Your task to perform on an android device: delete the emails in spam in the gmail app Image 0: 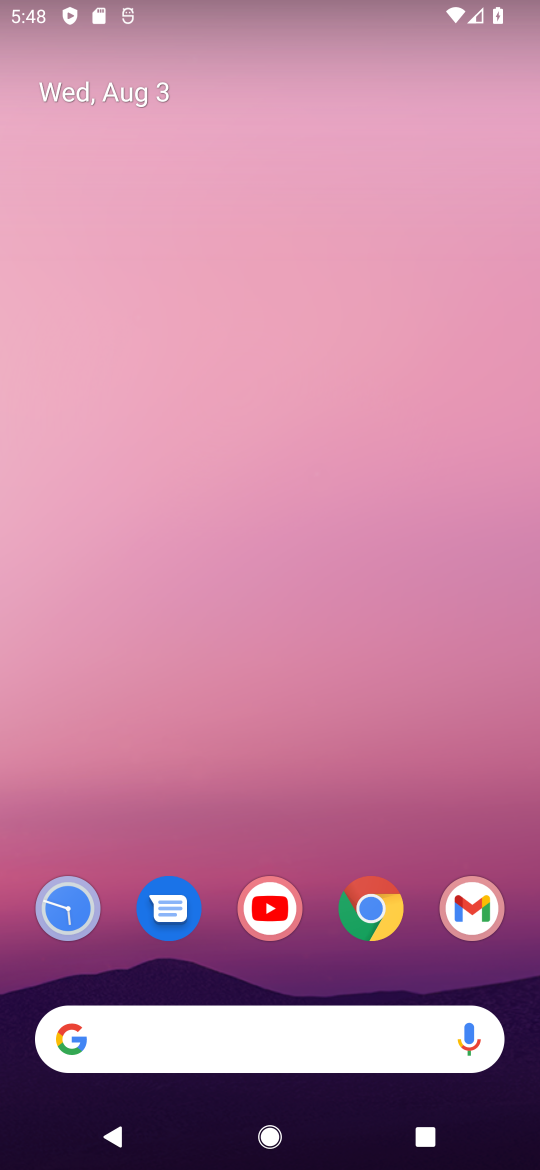
Step 0: drag from (278, 962) to (378, 84)
Your task to perform on an android device: delete the emails in spam in the gmail app Image 1: 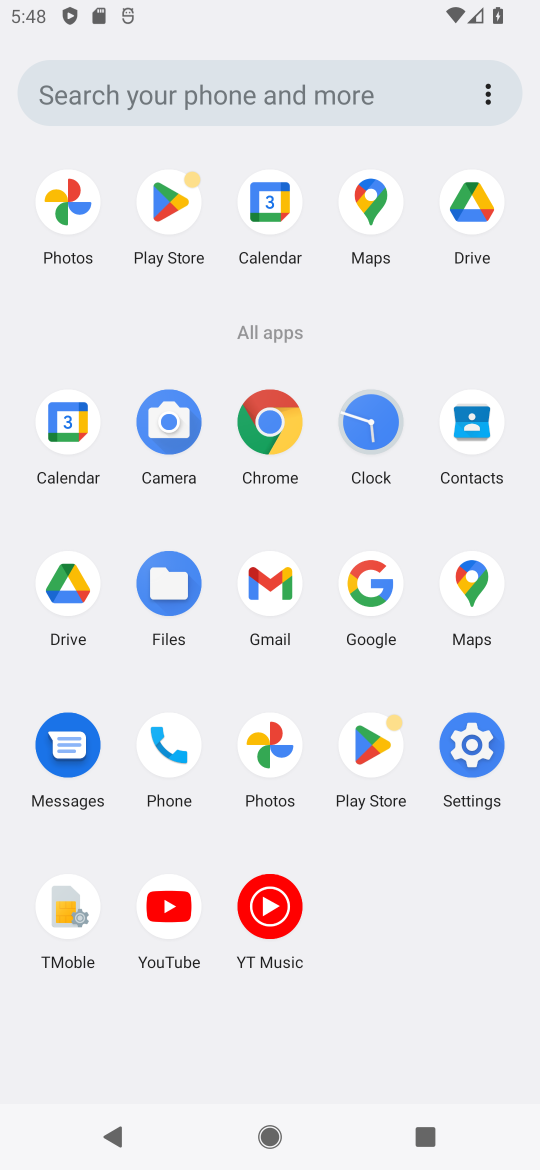
Step 1: click (284, 616)
Your task to perform on an android device: delete the emails in spam in the gmail app Image 2: 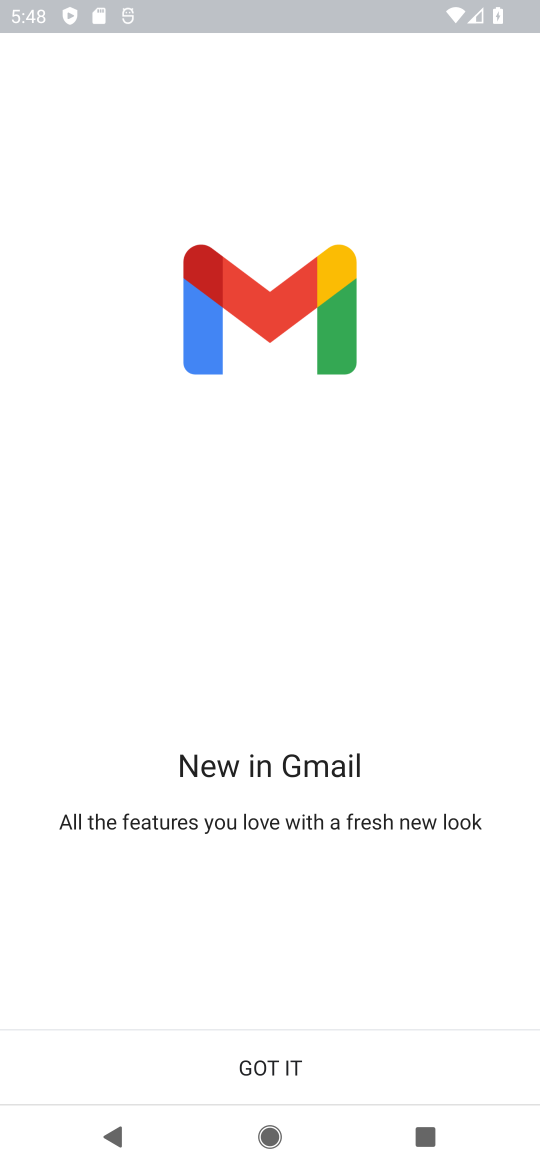
Step 2: click (358, 1057)
Your task to perform on an android device: delete the emails in spam in the gmail app Image 3: 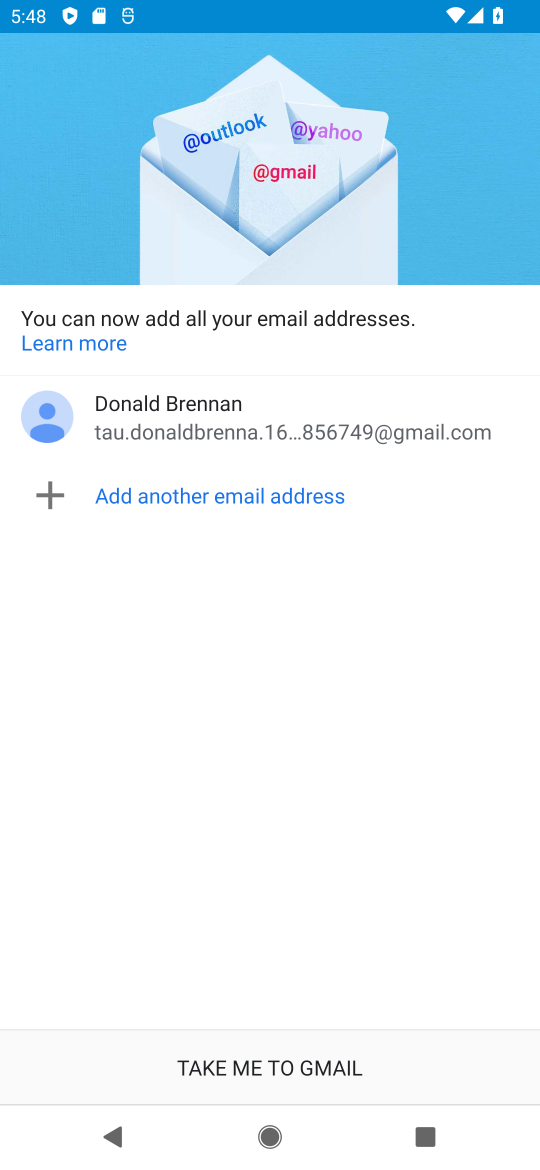
Step 3: click (278, 1063)
Your task to perform on an android device: delete the emails in spam in the gmail app Image 4: 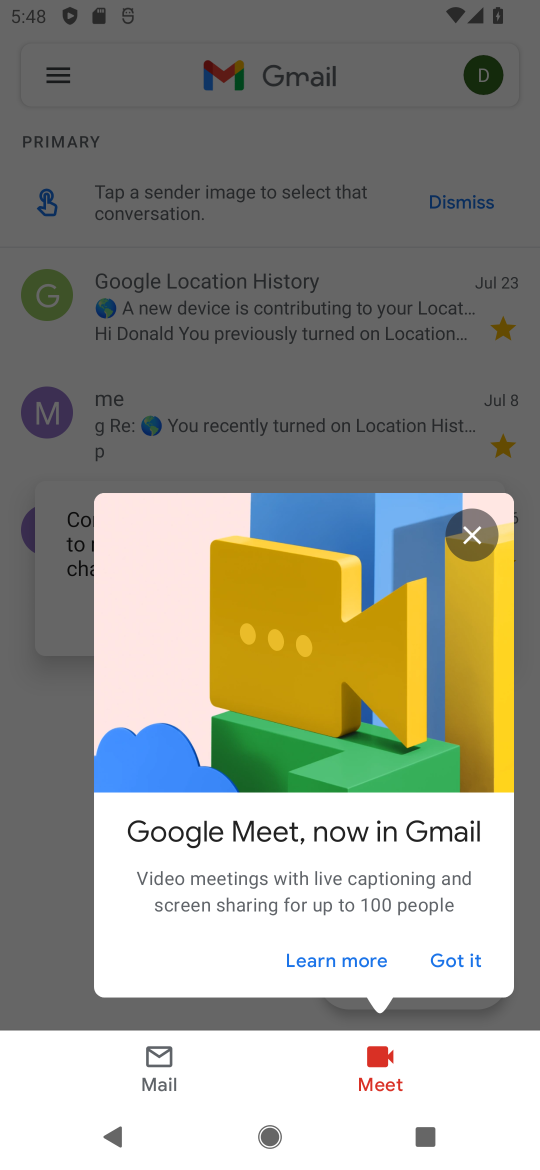
Step 4: click (471, 520)
Your task to perform on an android device: delete the emails in spam in the gmail app Image 5: 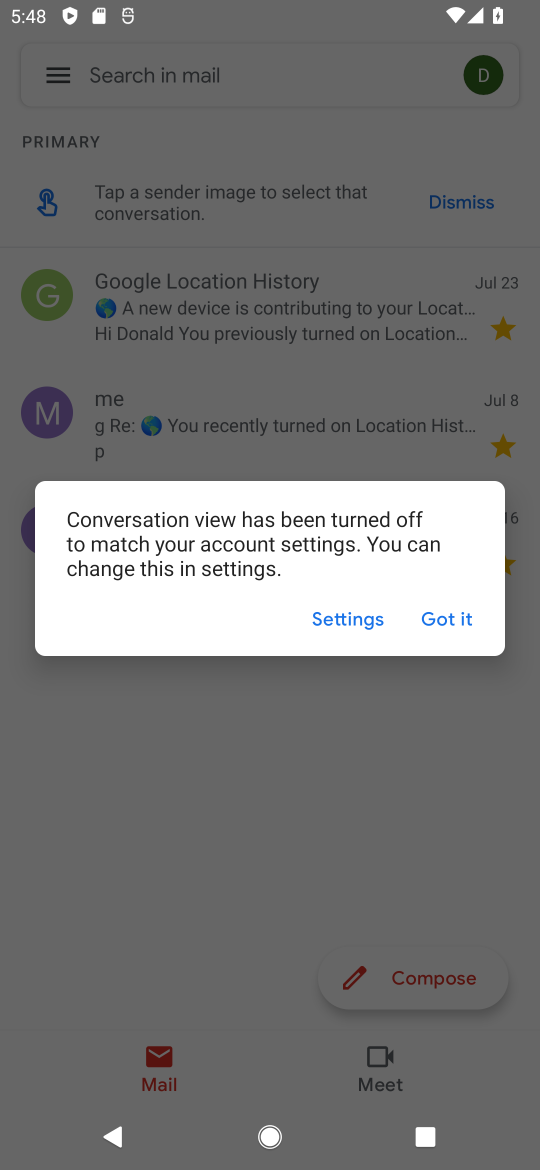
Step 5: click (445, 624)
Your task to perform on an android device: delete the emails in spam in the gmail app Image 6: 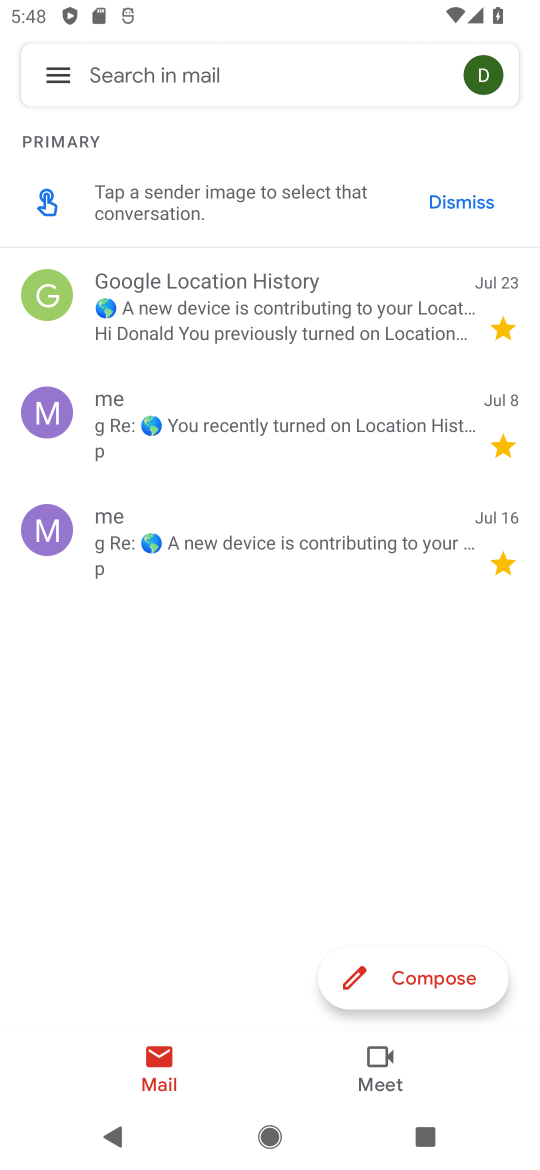
Step 6: click (46, 67)
Your task to perform on an android device: delete the emails in spam in the gmail app Image 7: 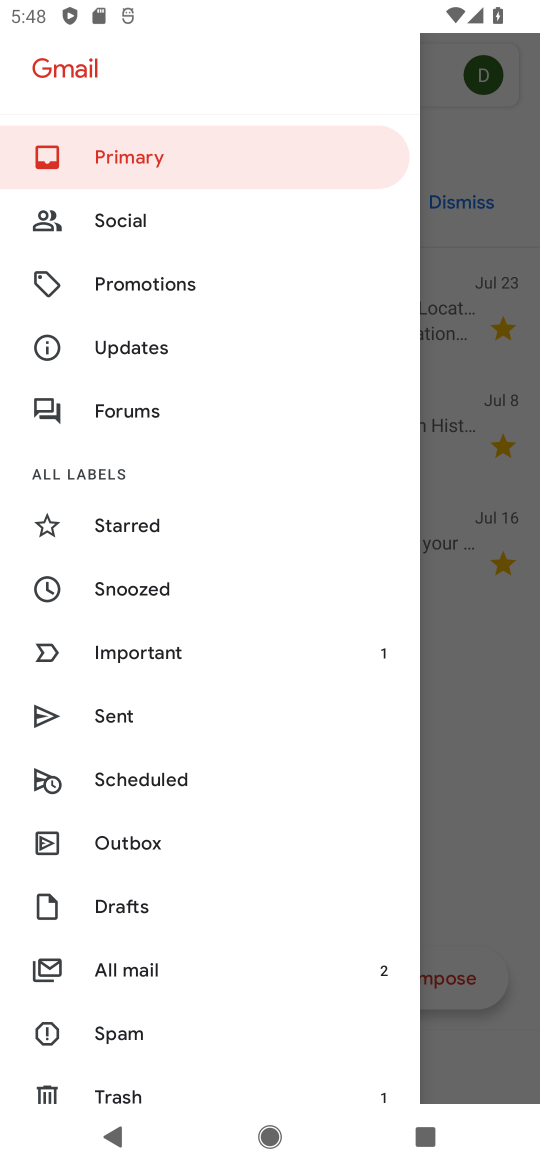
Step 7: click (158, 1024)
Your task to perform on an android device: delete the emails in spam in the gmail app Image 8: 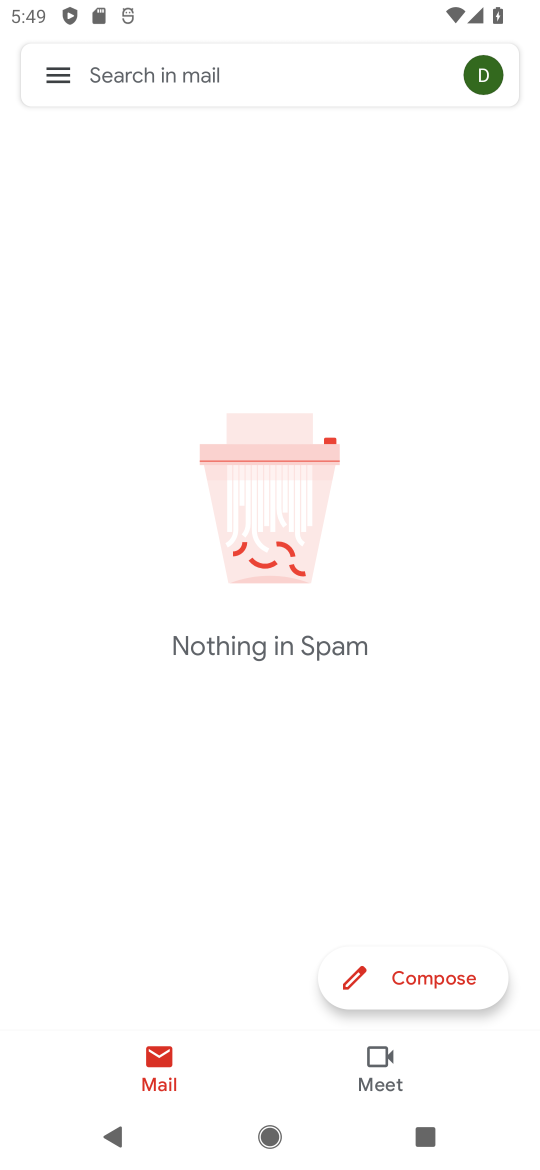
Step 8: task complete